Your task to perform on an android device: install app "Google Calendar" Image 0: 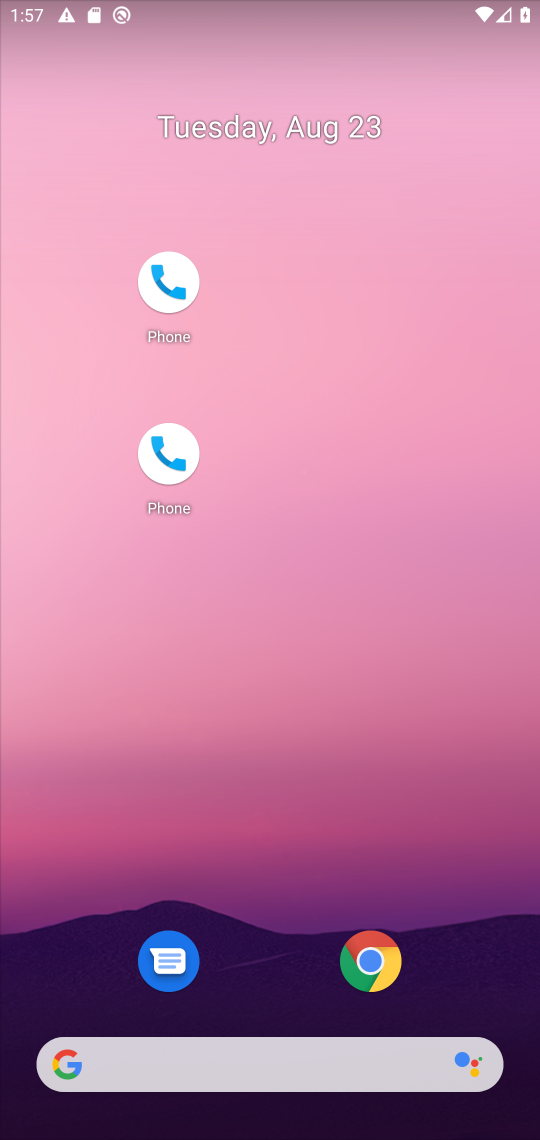
Step 0: drag from (264, 720) to (336, 230)
Your task to perform on an android device: install app "Google Calendar" Image 1: 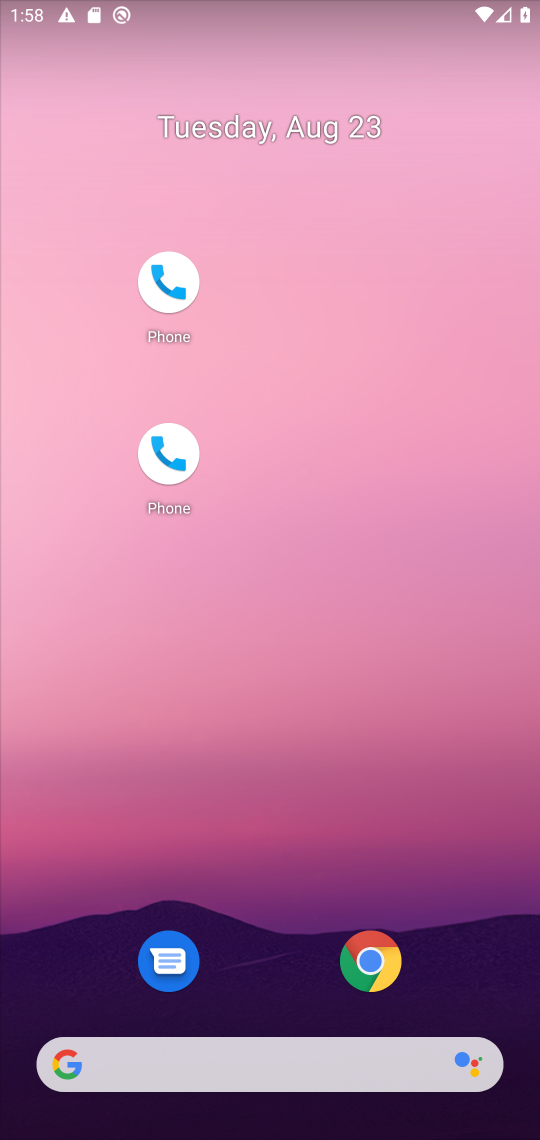
Step 1: drag from (264, 997) to (276, 66)
Your task to perform on an android device: install app "Google Calendar" Image 2: 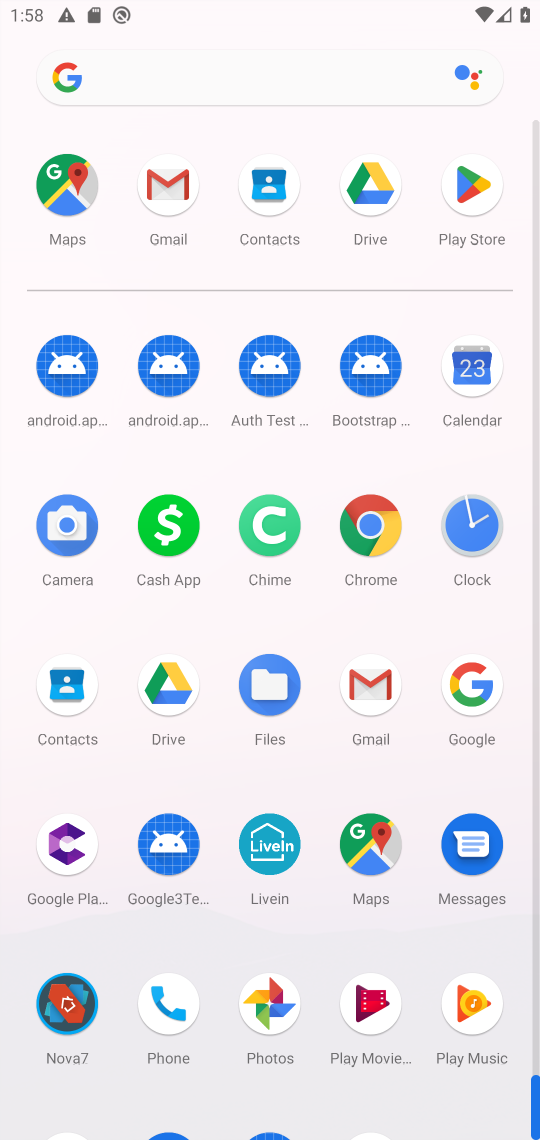
Step 2: click (475, 210)
Your task to perform on an android device: install app "Google Calendar" Image 3: 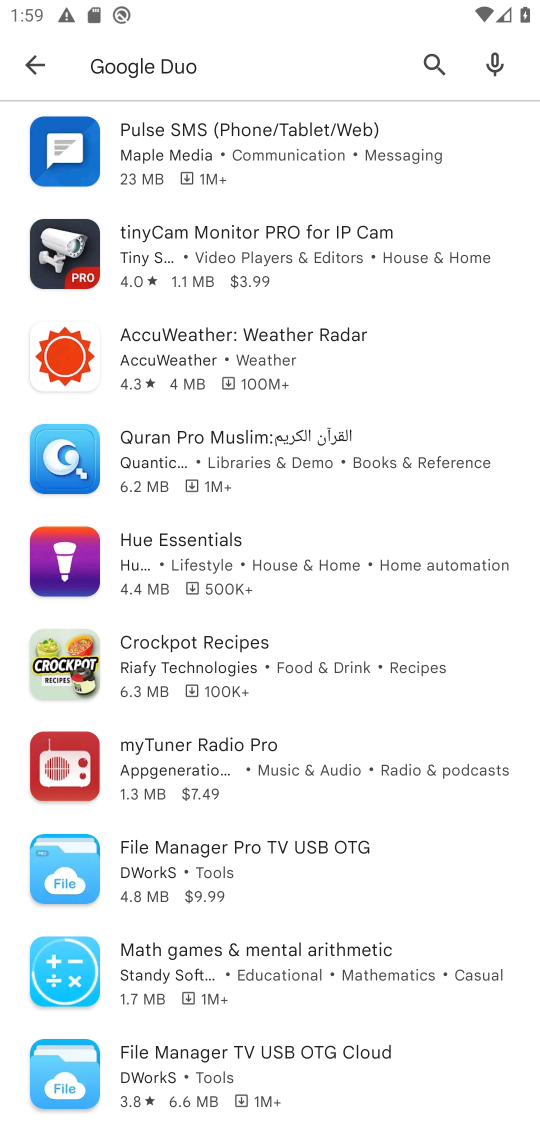
Step 3: task complete